Your task to perform on an android device: How much does a 2 bedroom apartment rent for in Washington DC? Image 0: 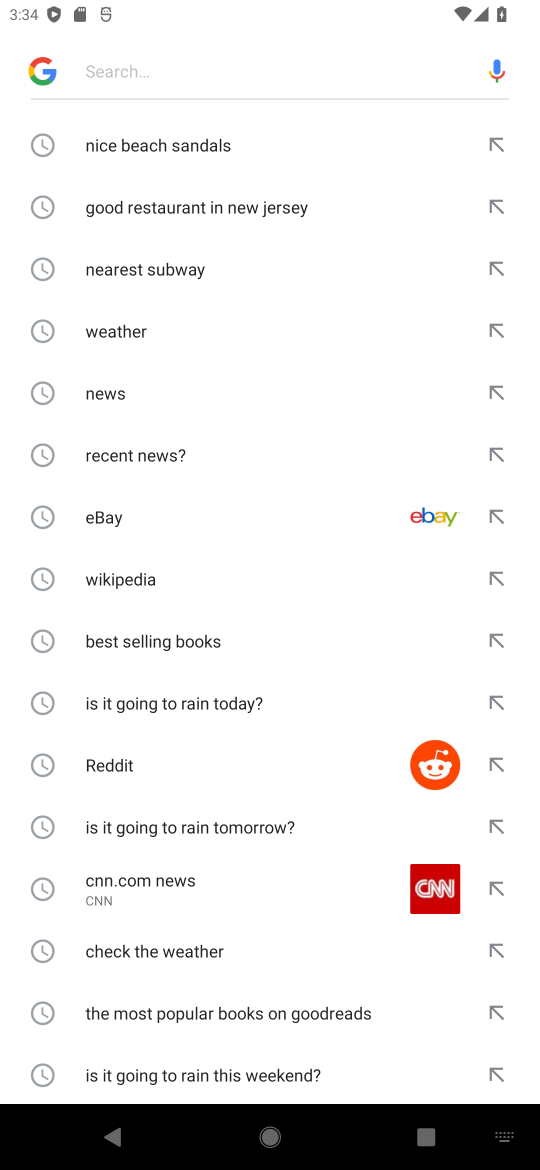
Step 0: press home button
Your task to perform on an android device: How much does a 2 bedroom apartment rent for in Washington DC? Image 1: 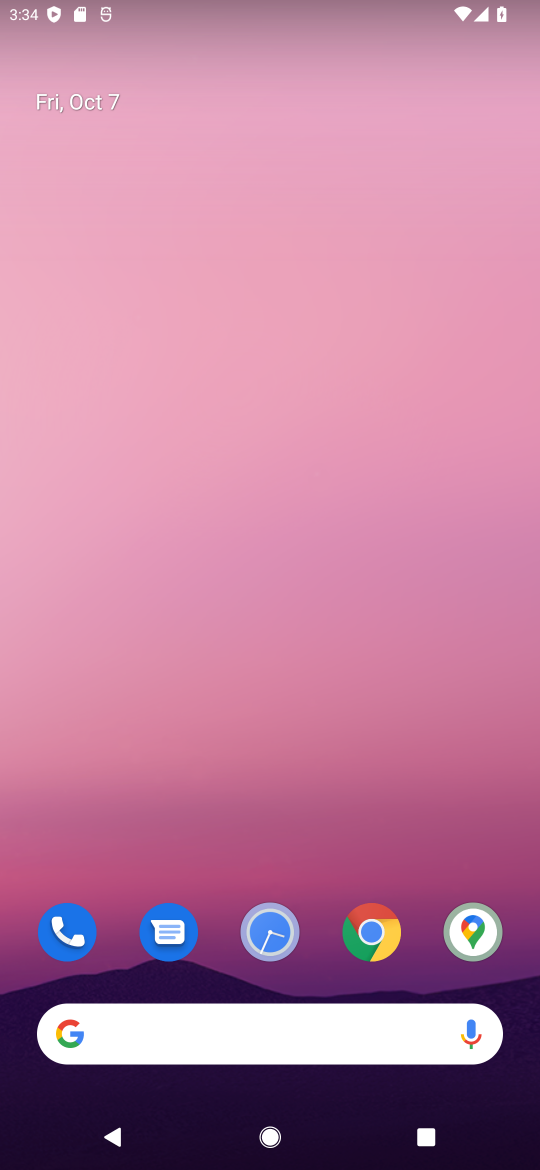
Step 1: drag from (239, 1153) to (480, 1134)
Your task to perform on an android device: How much does a 2 bedroom apartment rent for in Washington DC? Image 2: 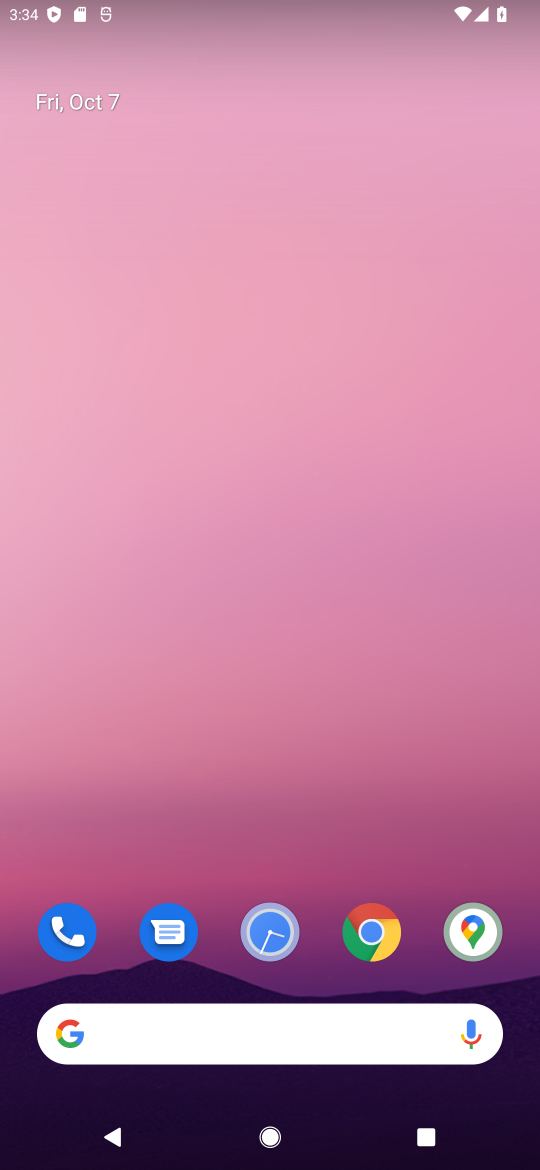
Step 2: click (276, 705)
Your task to perform on an android device: How much does a 2 bedroom apartment rent for in Washington DC? Image 3: 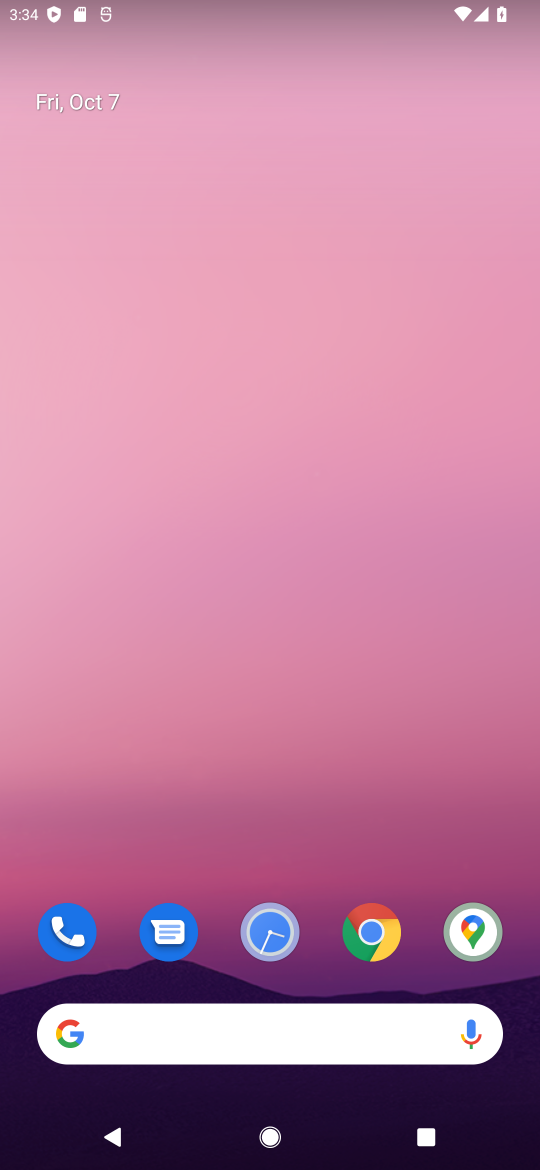
Step 3: click (355, 945)
Your task to perform on an android device: How much does a 2 bedroom apartment rent for in Washington DC? Image 4: 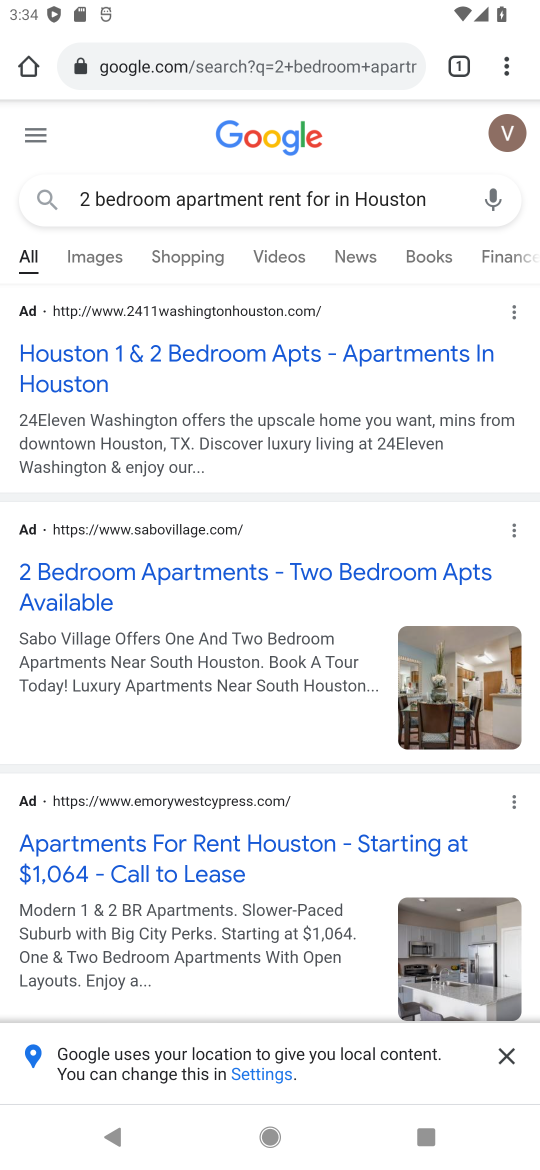
Step 4: click (441, 208)
Your task to perform on an android device: How much does a 2 bedroom apartment rent for in Washington DC? Image 5: 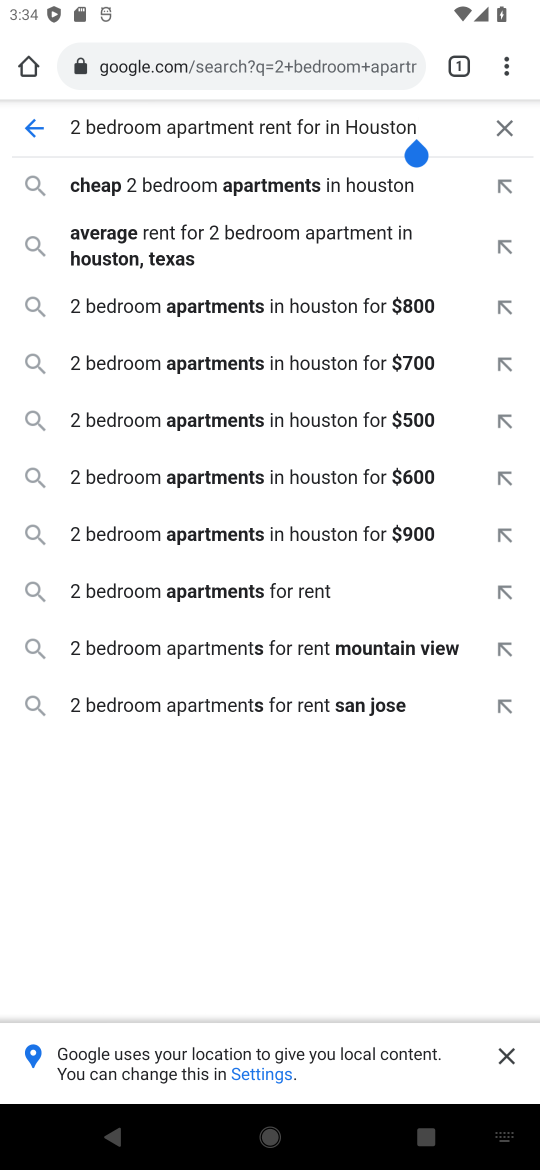
Step 5: click (510, 128)
Your task to perform on an android device: How much does a 2 bedroom apartment rent for in Washington DC? Image 6: 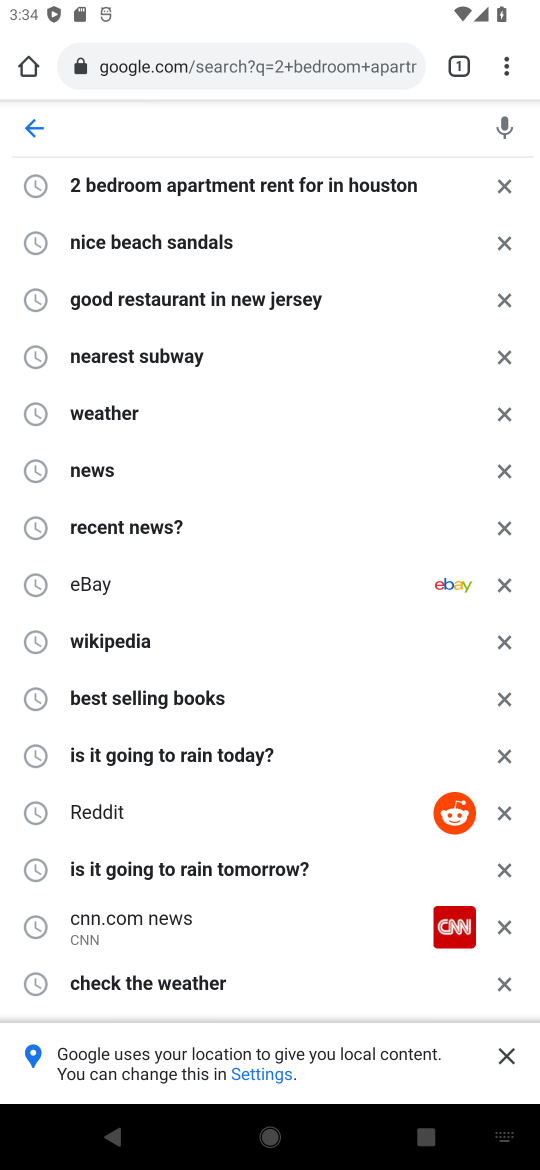
Step 6: type "How much does a 2 bedroom apartment rent for in Washington DC?"
Your task to perform on an android device: How much does a 2 bedroom apartment rent for in Washington DC? Image 7: 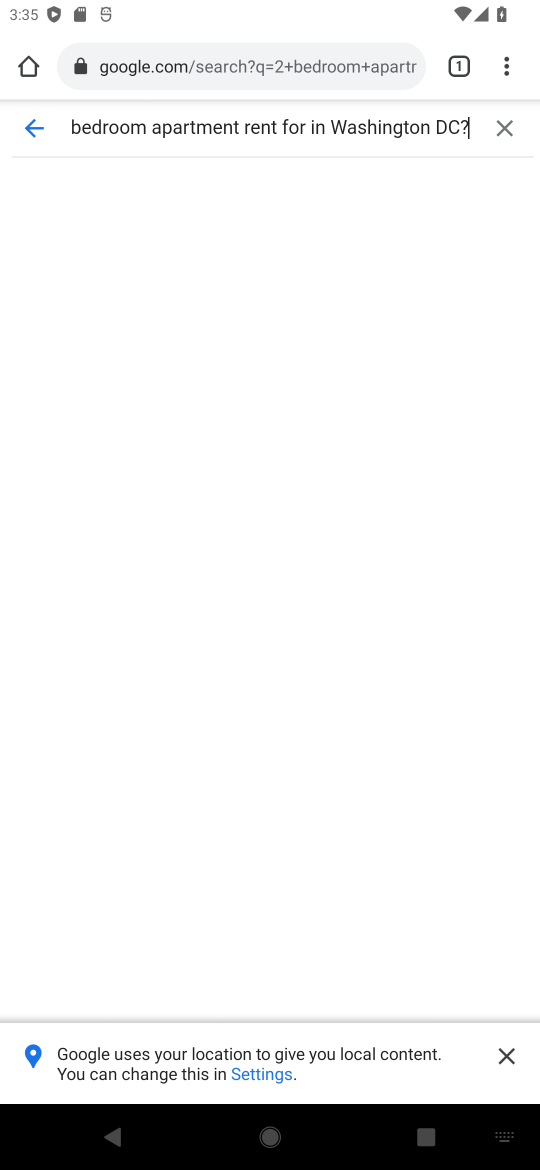
Step 7: click (514, 1060)
Your task to perform on an android device: How much does a 2 bedroom apartment rent for in Washington DC? Image 8: 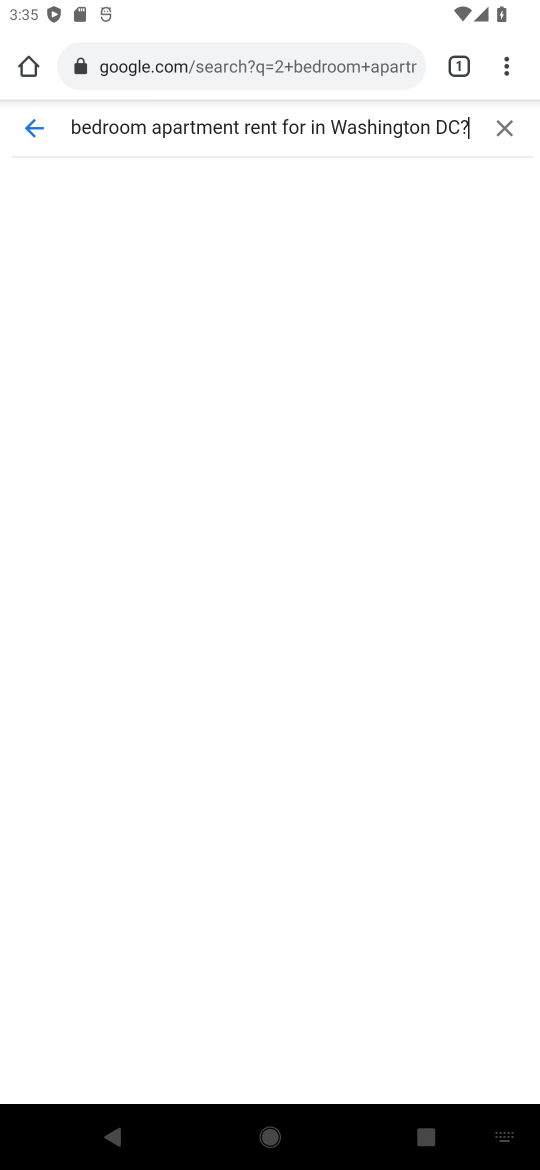
Step 8: click (197, 79)
Your task to perform on an android device: How much does a 2 bedroom apartment rent for in Washington DC? Image 9: 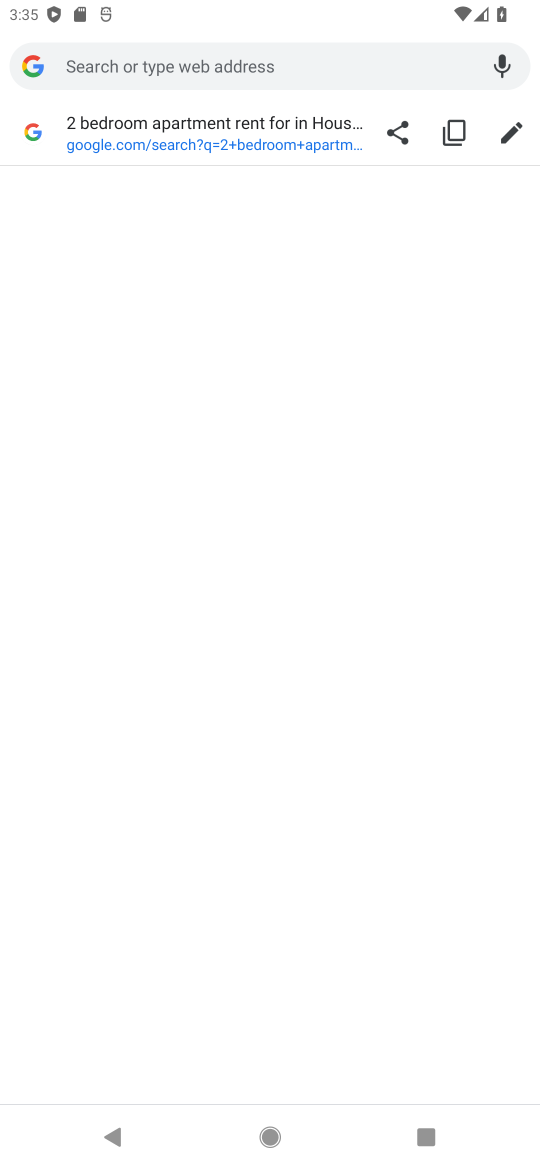
Step 9: type "How much does a 2 bedroom apartment rent for in Washington DC?"
Your task to perform on an android device: How much does a 2 bedroom apartment rent for in Washington DC? Image 10: 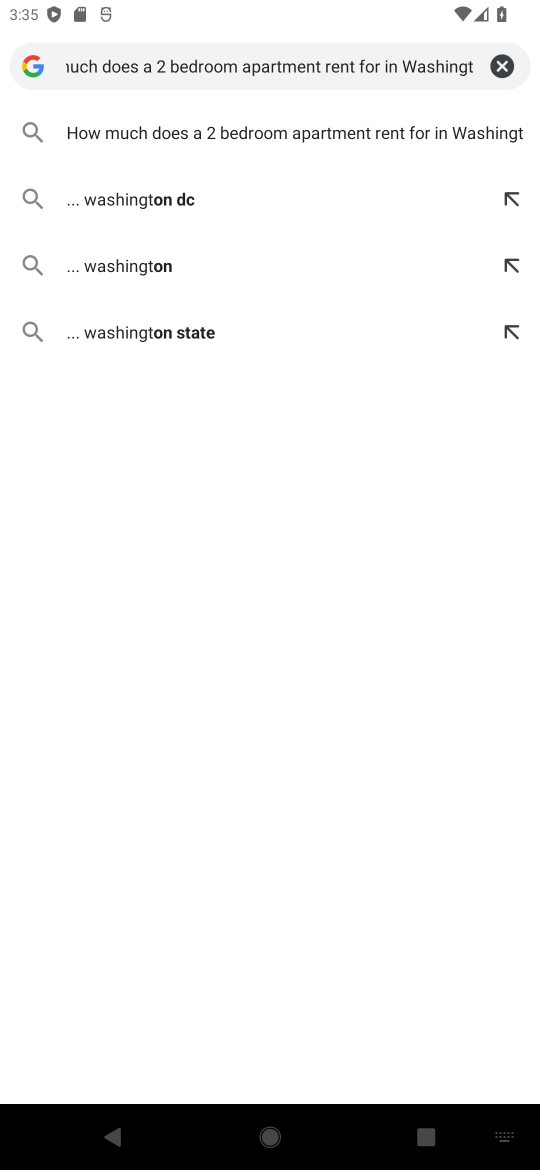
Step 10: click (322, 132)
Your task to perform on an android device: How much does a 2 bedroom apartment rent for in Washington DC? Image 11: 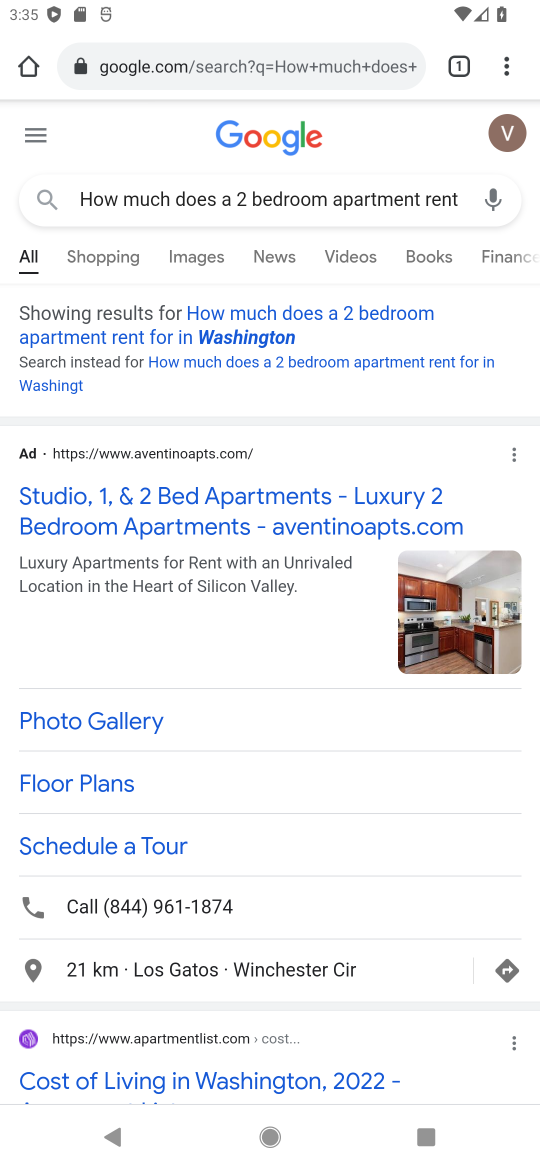
Step 11: task complete